Your task to perform on an android device: Open the web browser Image 0: 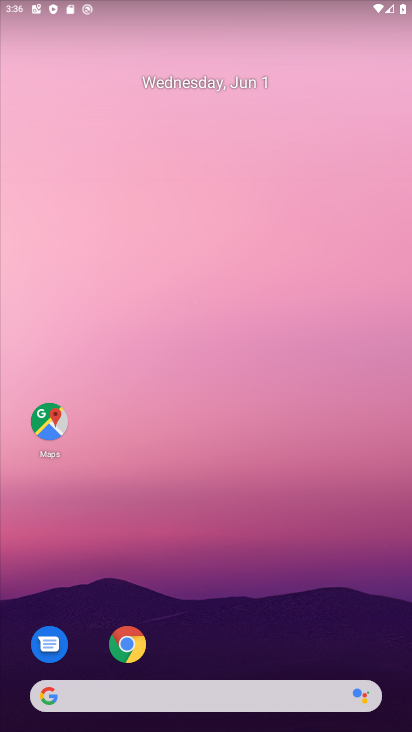
Step 0: click (146, 684)
Your task to perform on an android device: Open the web browser Image 1: 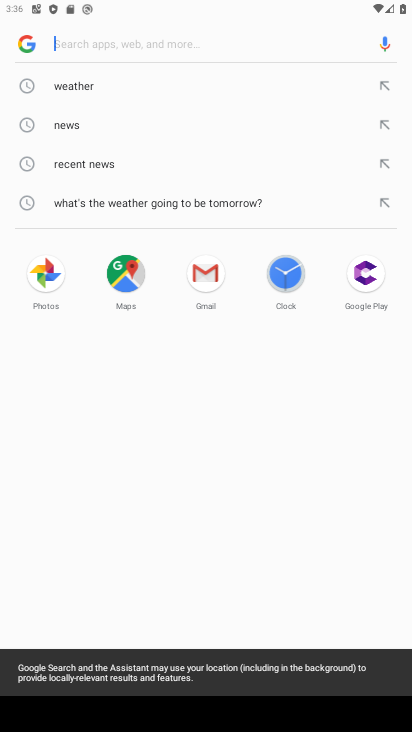
Step 1: click (22, 41)
Your task to perform on an android device: Open the web browser Image 2: 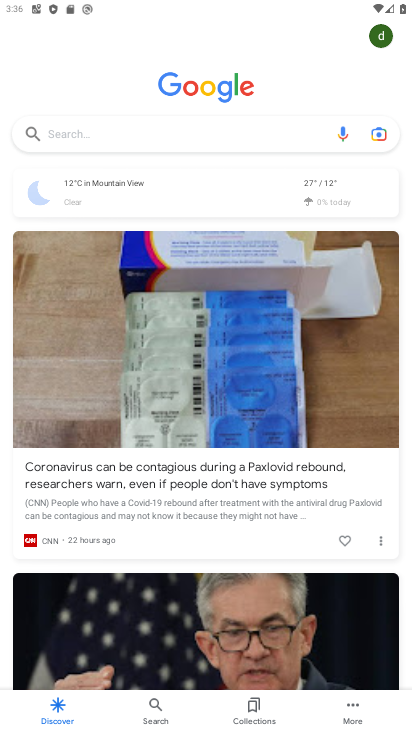
Step 2: task complete